Your task to perform on an android device: Go to Wikipedia Image 0: 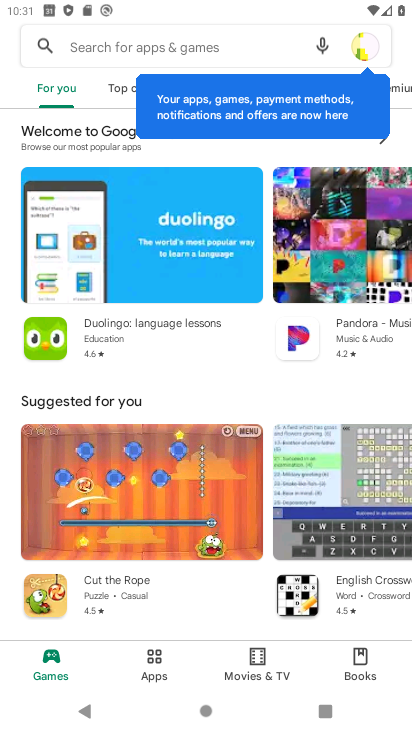
Step 0: press home button
Your task to perform on an android device: Go to Wikipedia Image 1: 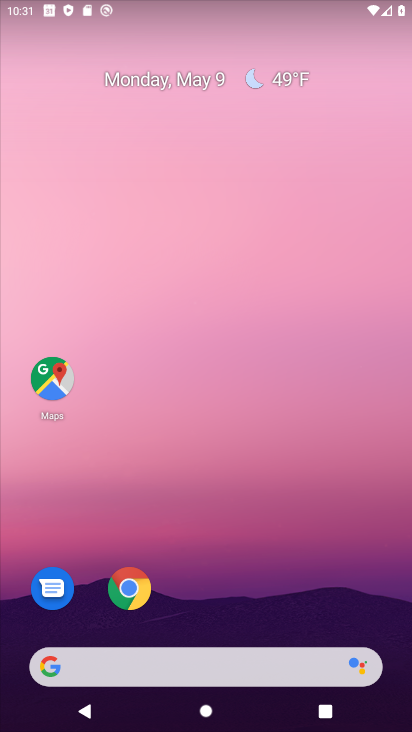
Step 1: click (129, 590)
Your task to perform on an android device: Go to Wikipedia Image 2: 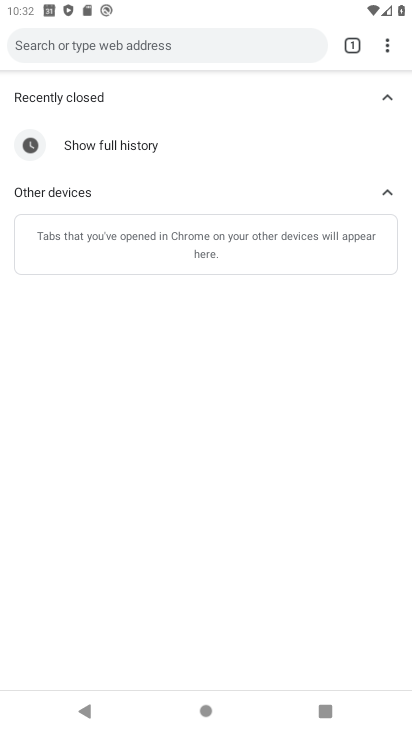
Step 2: click (199, 42)
Your task to perform on an android device: Go to Wikipedia Image 3: 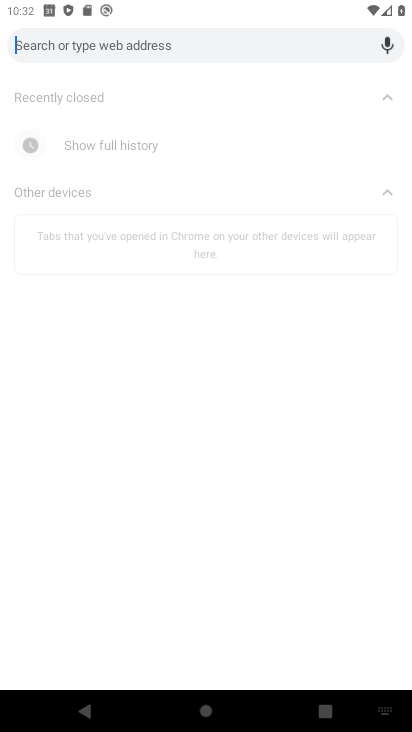
Step 3: type "Wikipedia"
Your task to perform on an android device: Go to Wikipedia Image 4: 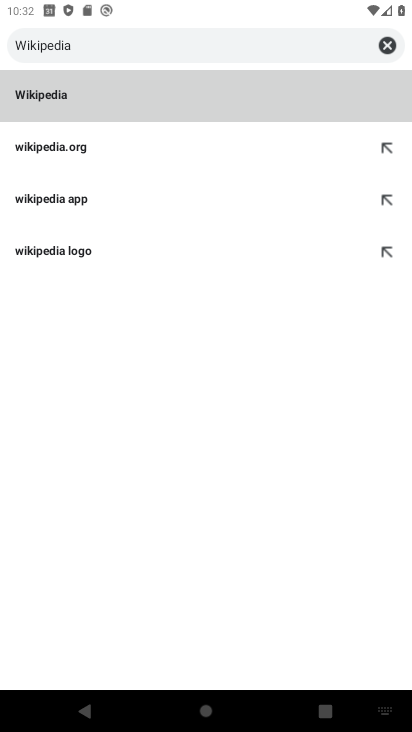
Step 4: click (133, 92)
Your task to perform on an android device: Go to Wikipedia Image 5: 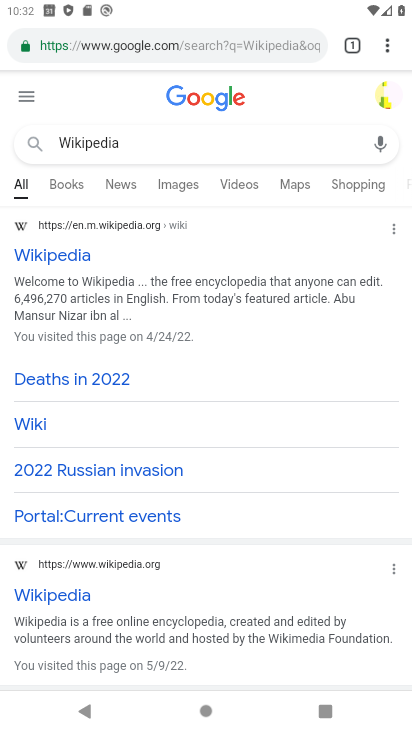
Step 5: click (53, 258)
Your task to perform on an android device: Go to Wikipedia Image 6: 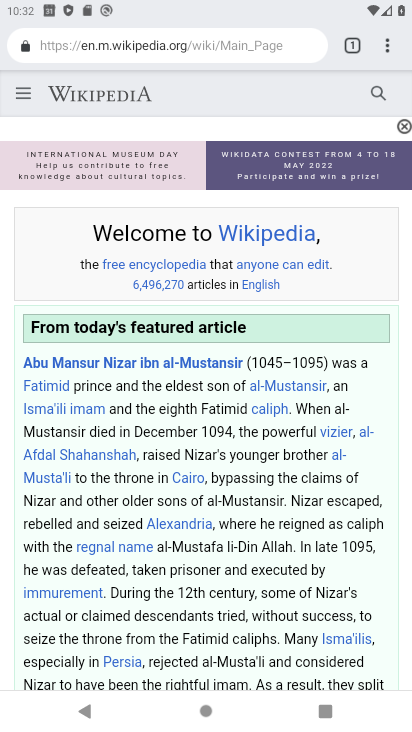
Step 6: task complete